Your task to perform on an android device: Go to Yahoo.com Image 0: 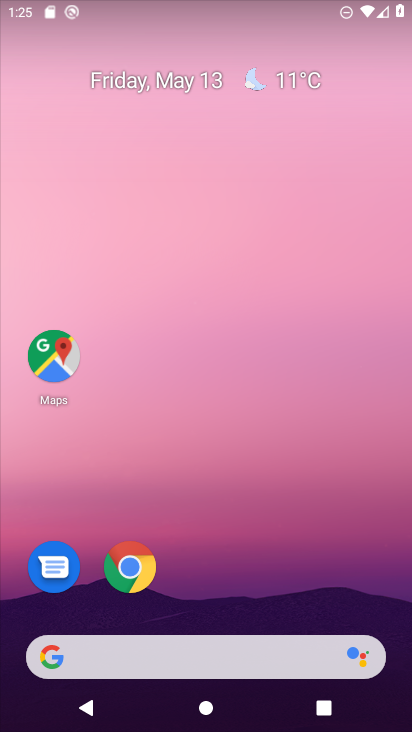
Step 0: drag from (222, 620) to (237, 2)
Your task to perform on an android device: Go to Yahoo.com Image 1: 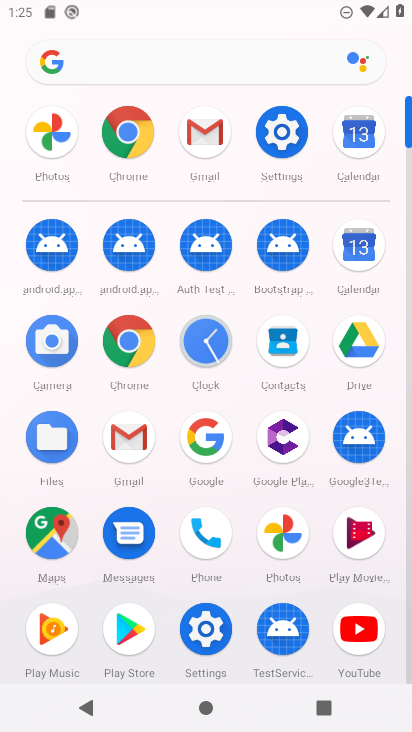
Step 1: click (123, 124)
Your task to perform on an android device: Go to Yahoo.com Image 2: 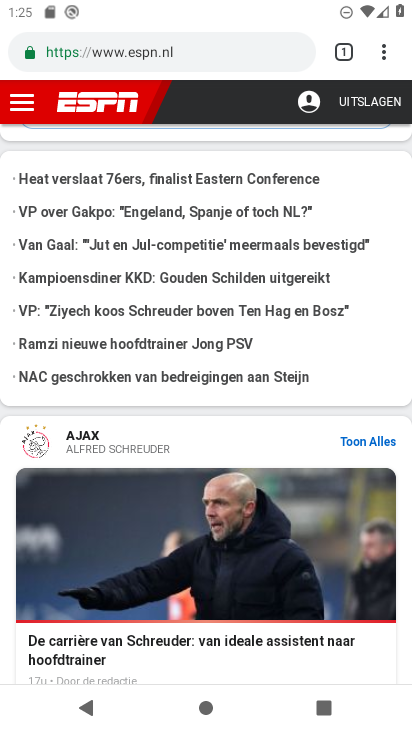
Step 2: click (342, 46)
Your task to perform on an android device: Go to Yahoo.com Image 3: 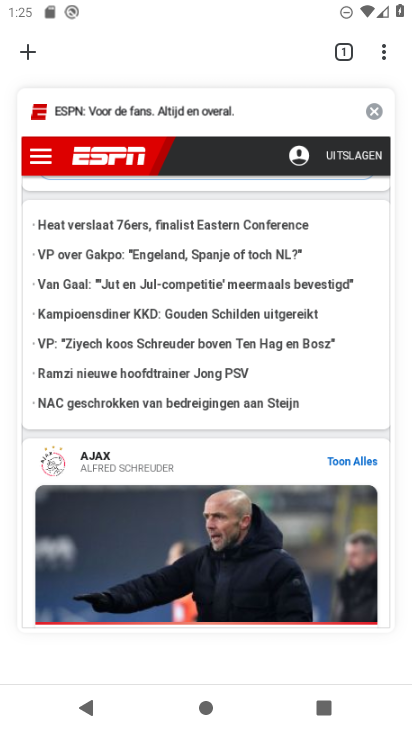
Step 3: click (374, 110)
Your task to perform on an android device: Go to Yahoo.com Image 4: 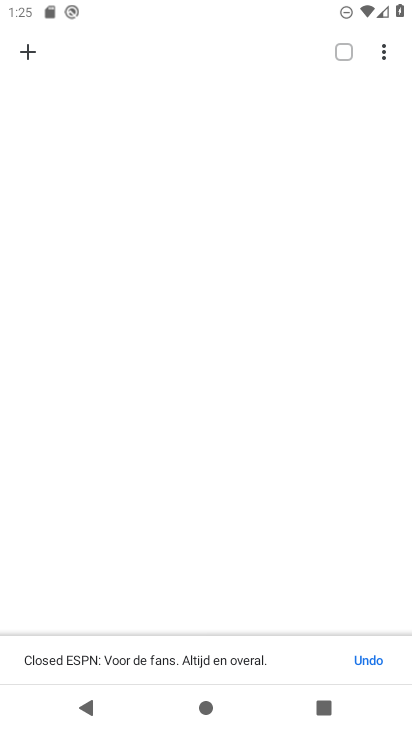
Step 4: click (32, 52)
Your task to perform on an android device: Go to Yahoo.com Image 5: 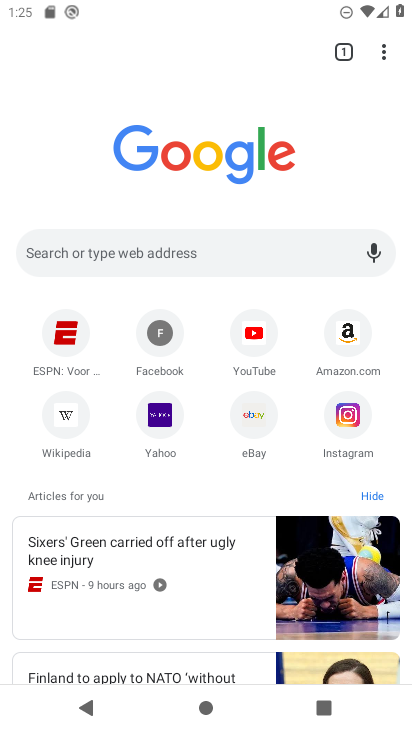
Step 5: click (158, 414)
Your task to perform on an android device: Go to Yahoo.com Image 6: 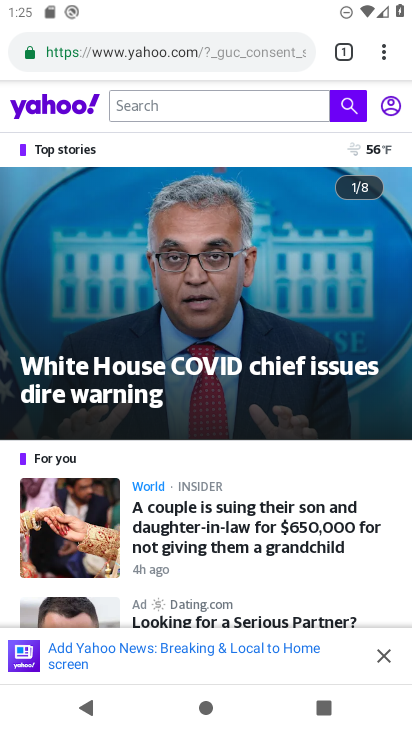
Step 6: task complete